Your task to perform on an android device: turn notification dots off Image 0: 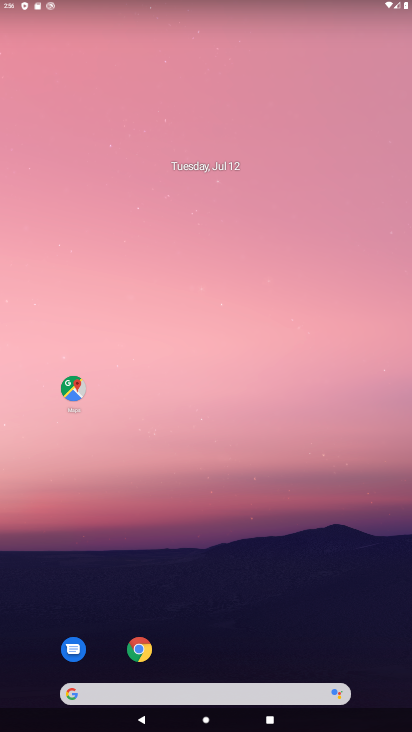
Step 0: drag from (188, 686) to (170, 504)
Your task to perform on an android device: turn notification dots off Image 1: 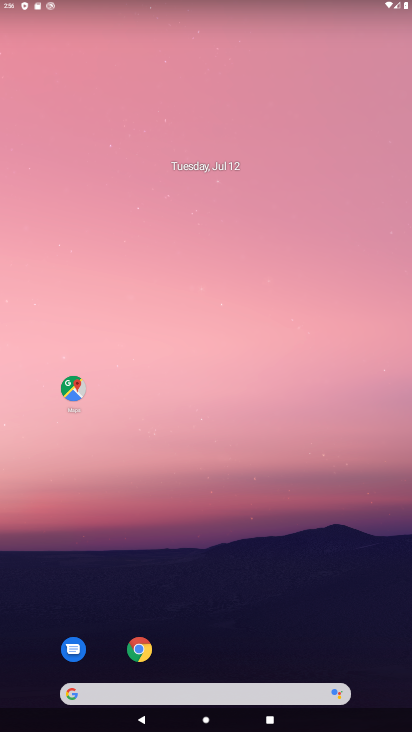
Step 1: drag from (213, 695) to (221, 314)
Your task to perform on an android device: turn notification dots off Image 2: 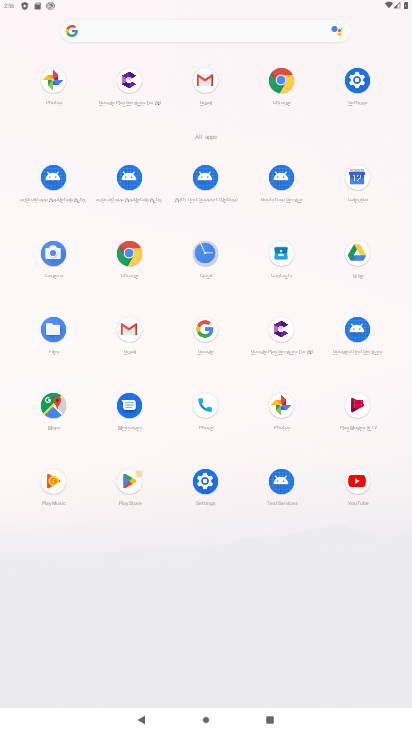
Step 2: click (357, 75)
Your task to perform on an android device: turn notification dots off Image 3: 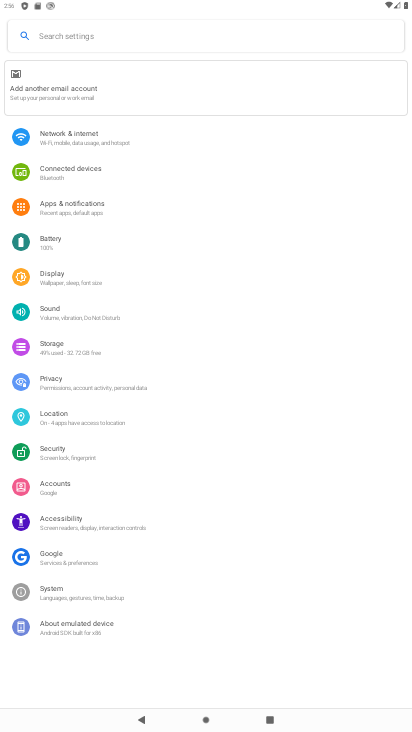
Step 3: click (91, 205)
Your task to perform on an android device: turn notification dots off Image 4: 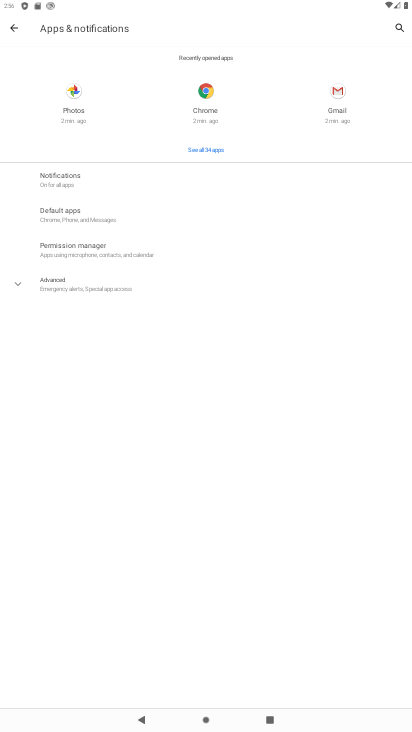
Step 4: click (58, 174)
Your task to perform on an android device: turn notification dots off Image 5: 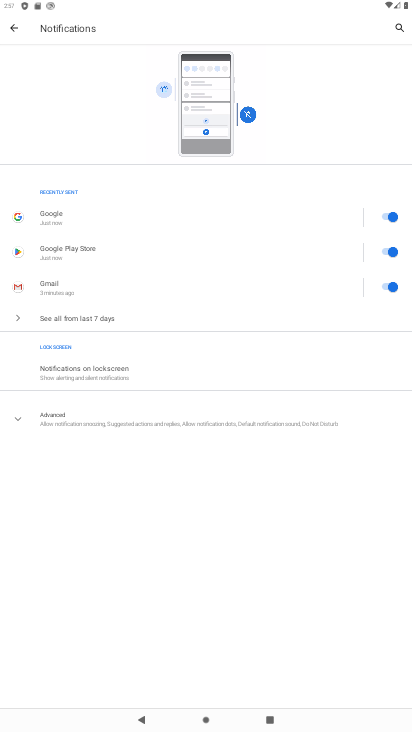
Step 5: click (53, 421)
Your task to perform on an android device: turn notification dots off Image 6: 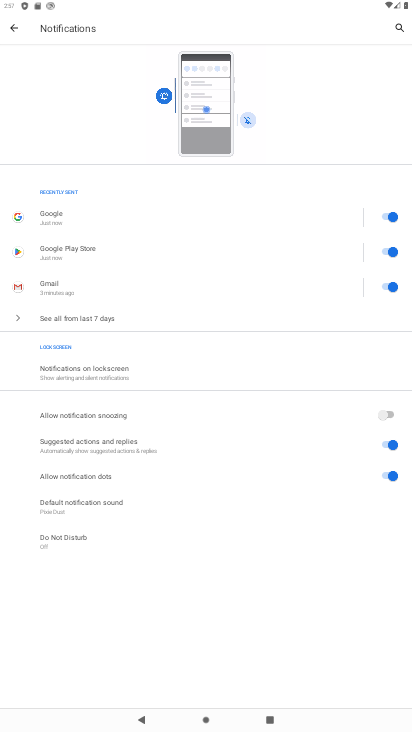
Step 6: click (388, 476)
Your task to perform on an android device: turn notification dots off Image 7: 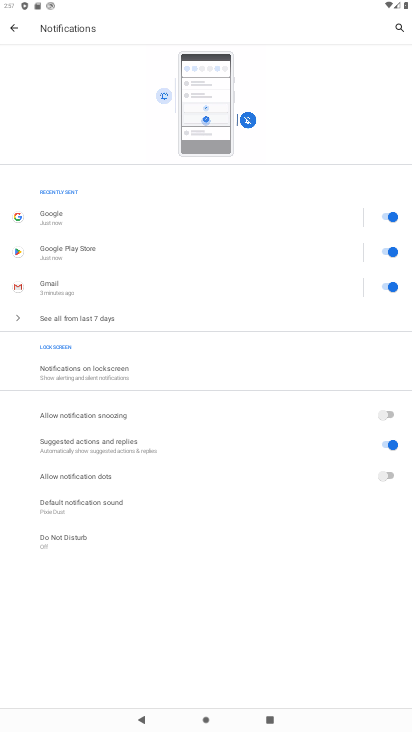
Step 7: task complete